Your task to perform on an android device: turn pop-ups on in chrome Image 0: 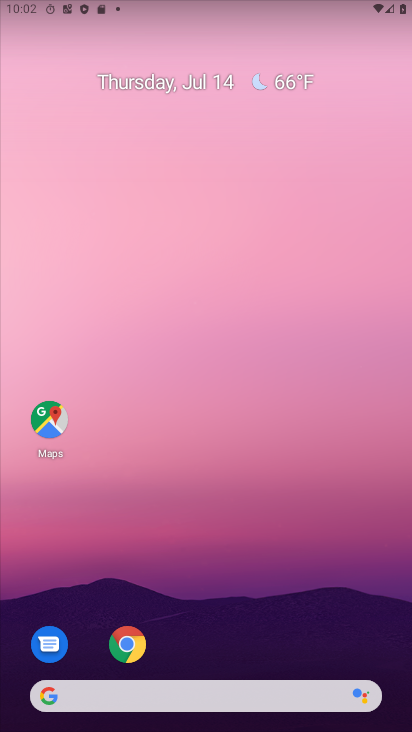
Step 0: click (271, 324)
Your task to perform on an android device: turn pop-ups on in chrome Image 1: 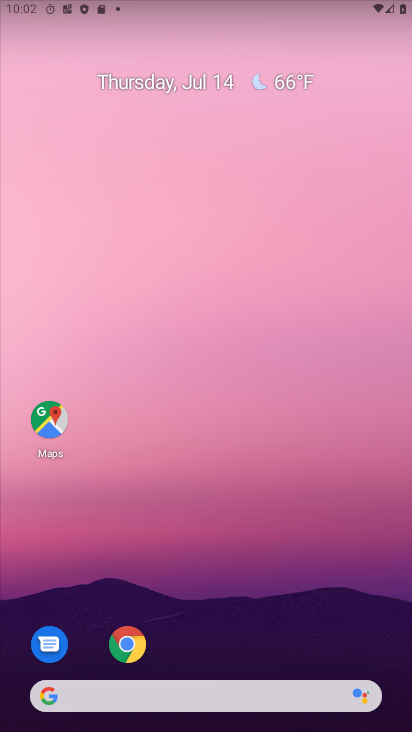
Step 1: drag from (278, 628) to (240, 357)
Your task to perform on an android device: turn pop-ups on in chrome Image 2: 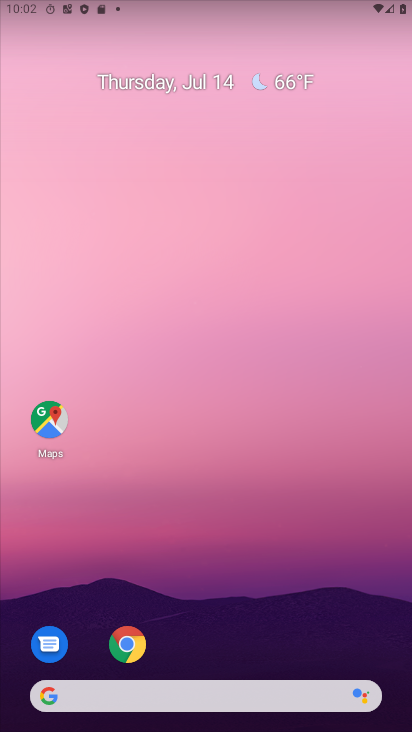
Step 2: drag from (254, 694) to (190, 242)
Your task to perform on an android device: turn pop-ups on in chrome Image 3: 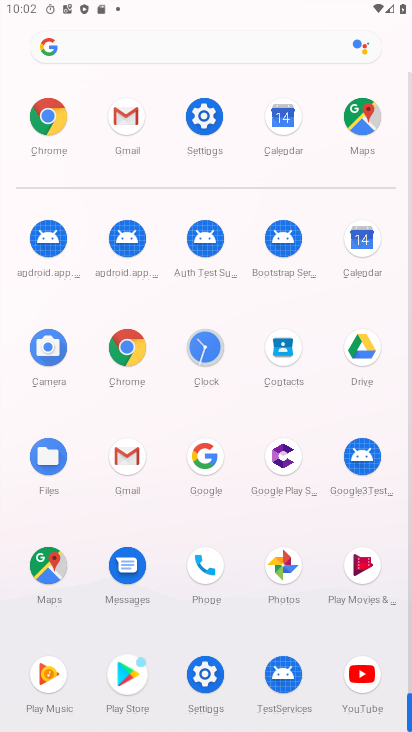
Step 3: drag from (255, 545) to (225, 108)
Your task to perform on an android device: turn pop-ups on in chrome Image 4: 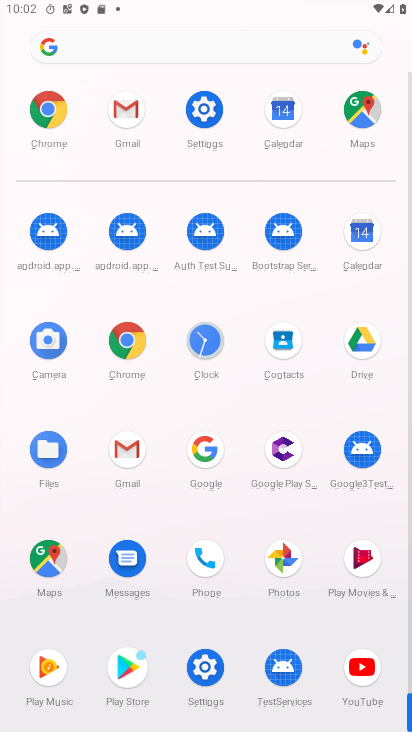
Step 4: click (123, 343)
Your task to perform on an android device: turn pop-ups on in chrome Image 5: 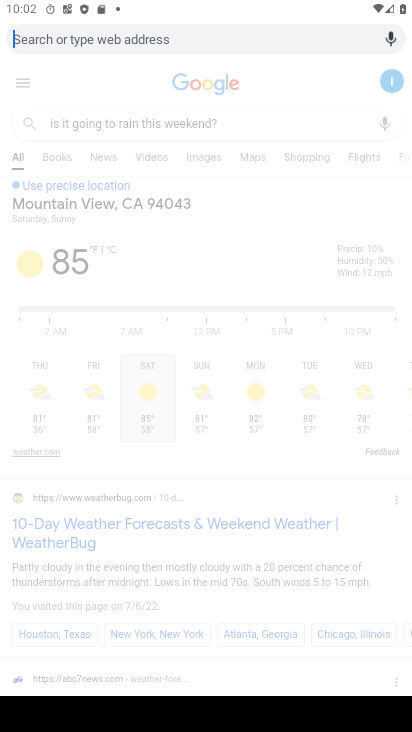
Step 5: click (390, 44)
Your task to perform on an android device: turn pop-ups on in chrome Image 6: 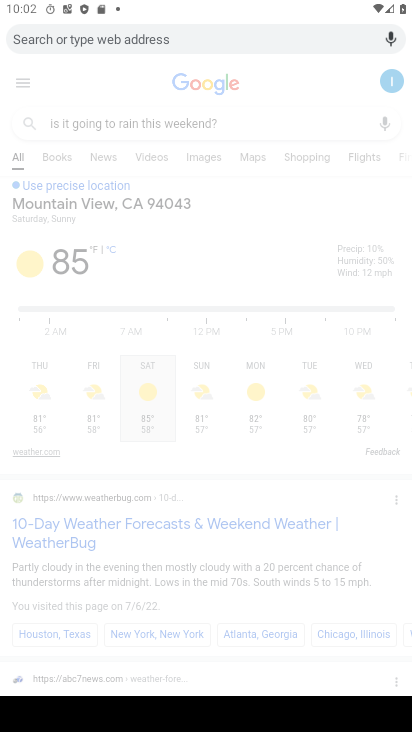
Step 6: click (389, 41)
Your task to perform on an android device: turn pop-ups on in chrome Image 7: 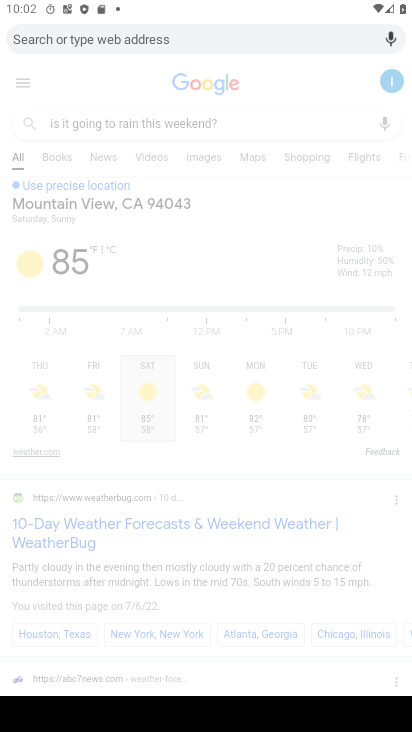
Step 7: click (390, 36)
Your task to perform on an android device: turn pop-ups on in chrome Image 8: 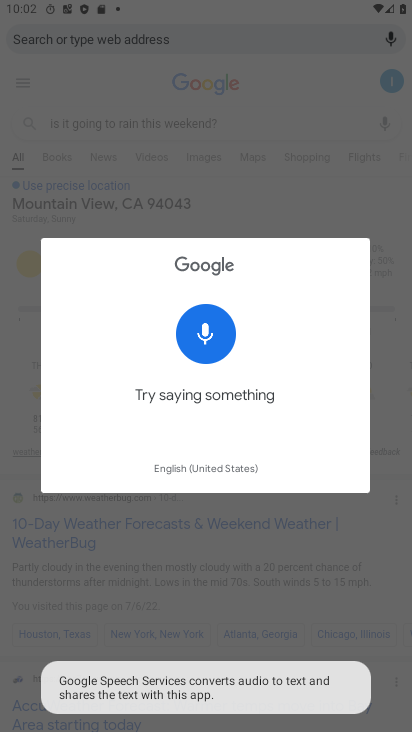
Step 8: press back button
Your task to perform on an android device: turn pop-ups on in chrome Image 9: 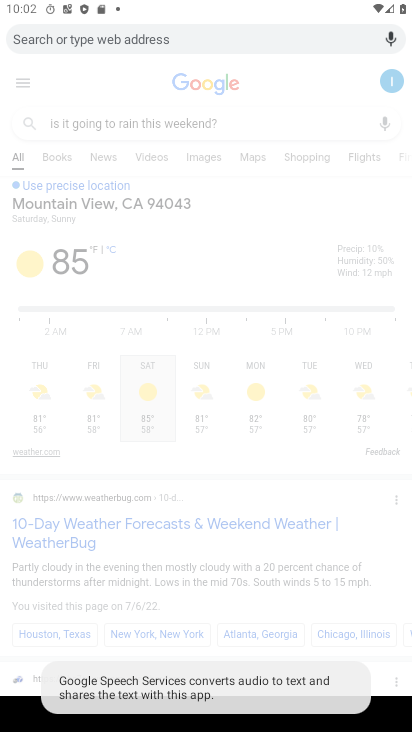
Step 9: press home button
Your task to perform on an android device: turn pop-ups on in chrome Image 10: 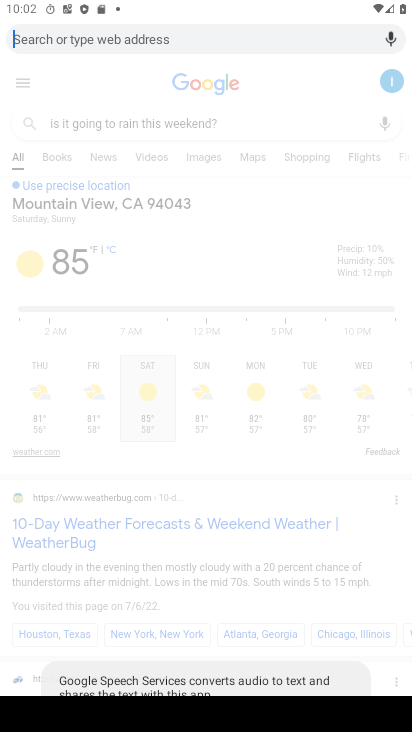
Step 10: press home button
Your task to perform on an android device: turn pop-ups on in chrome Image 11: 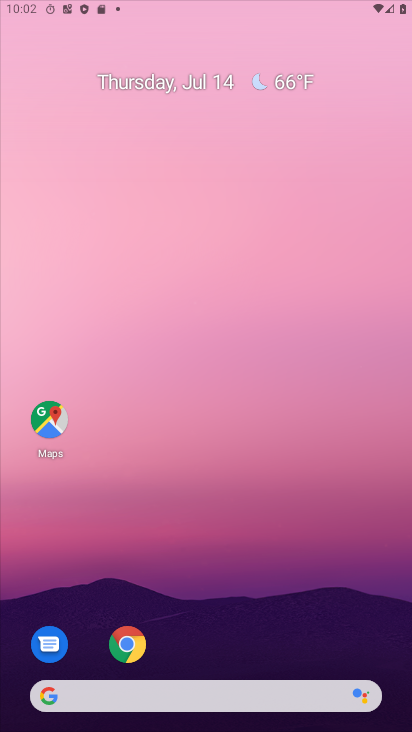
Step 11: press home button
Your task to perform on an android device: turn pop-ups on in chrome Image 12: 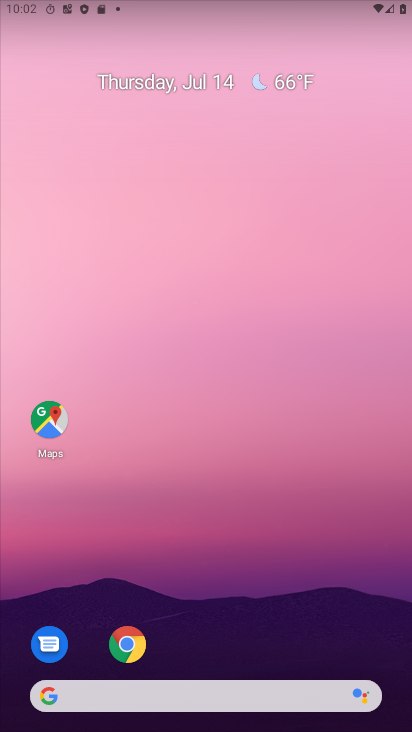
Step 12: drag from (223, 575) to (212, 82)
Your task to perform on an android device: turn pop-ups on in chrome Image 13: 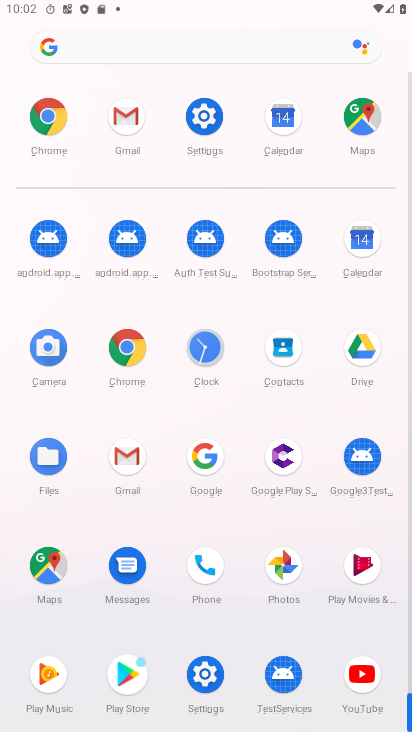
Step 13: click (56, 128)
Your task to perform on an android device: turn pop-ups on in chrome Image 14: 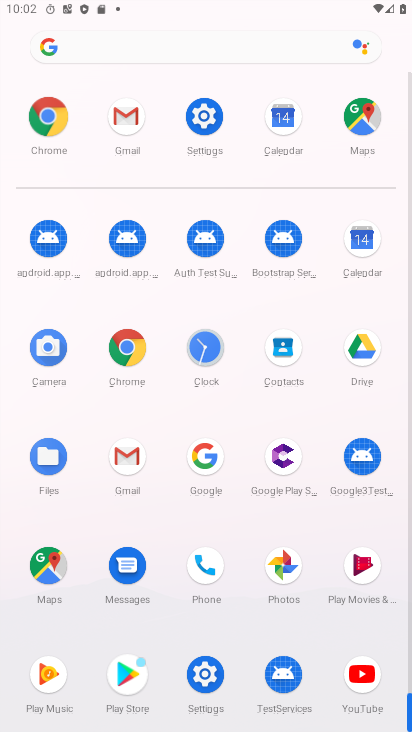
Step 14: click (56, 128)
Your task to perform on an android device: turn pop-ups on in chrome Image 15: 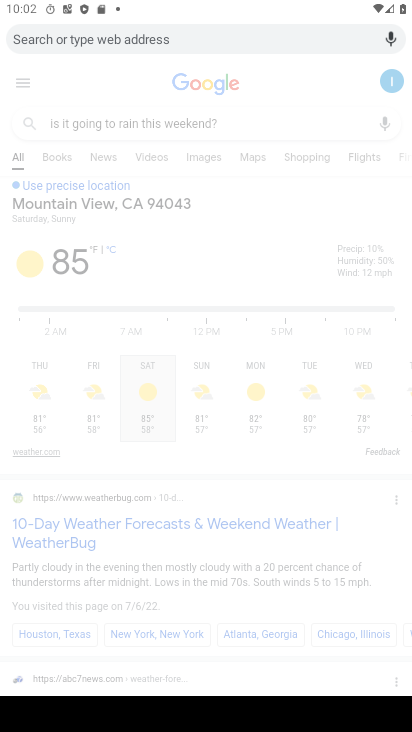
Step 15: click (389, 31)
Your task to perform on an android device: turn pop-ups on in chrome Image 16: 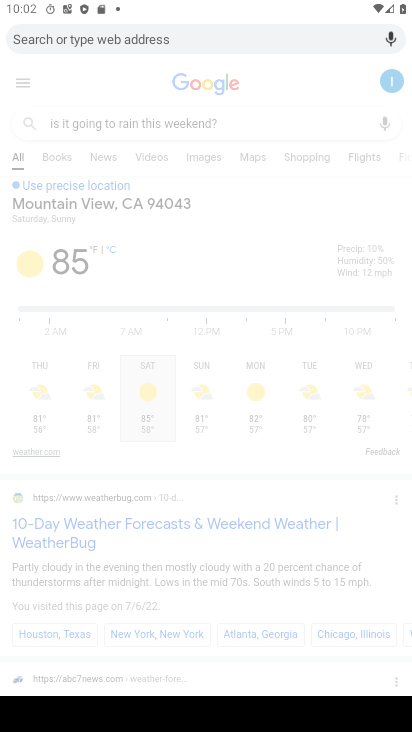
Step 16: click (389, 31)
Your task to perform on an android device: turn pop-ups on in chrome Image 17: 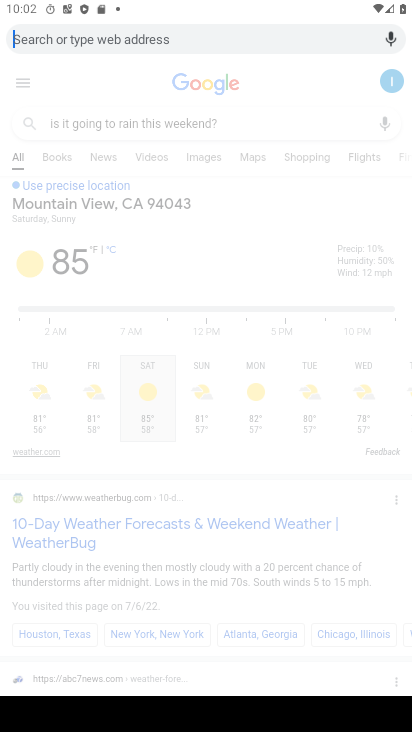
Step 17: drag from (389, 31) to (366, 460)
Your task to perform on an android device: turn pop-ups on in chrome Image 18: 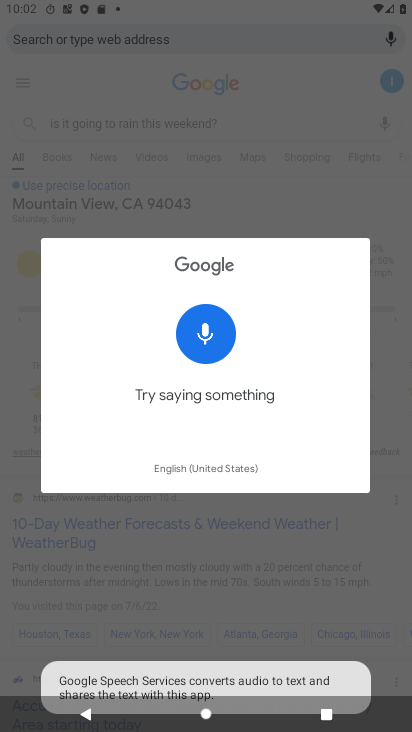
Step 18: click (331, 192)
Your task to perform on an android device: turn pop-ups on in chrome Image 19: 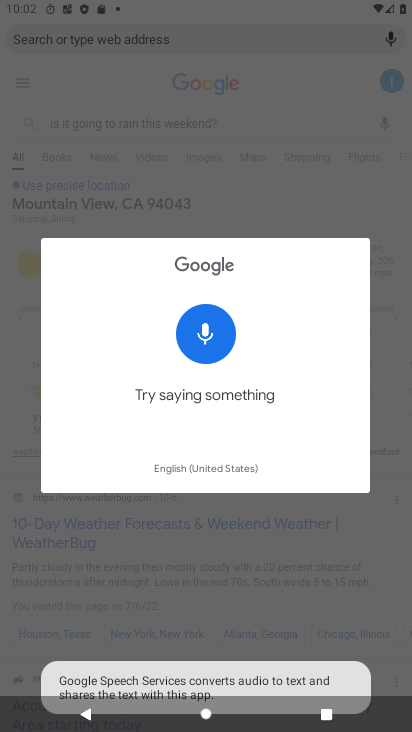
Step 19: click (332, 191)
Your task to perform on an android device: turn pop-ups on in chrome Image 20: 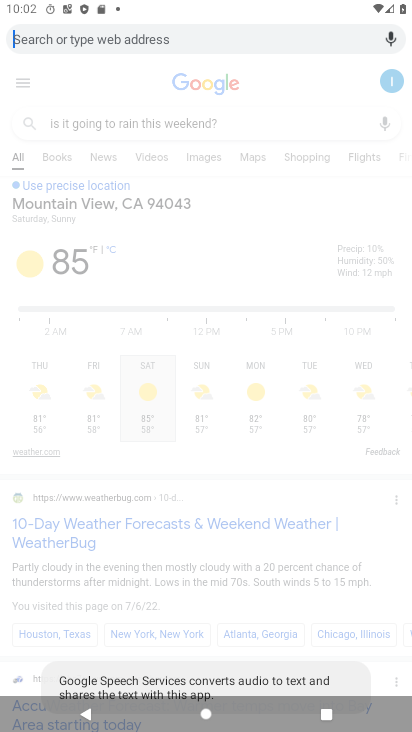
Step 20: click (333, 191)
Your task to perform on an android device: turn pop-ups on in chrome Image 21: 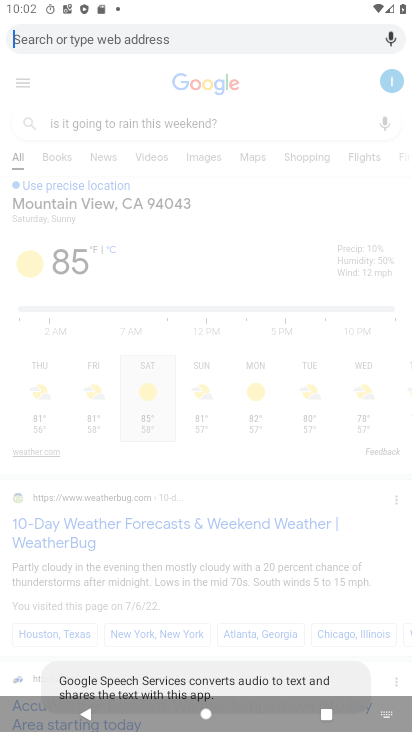
Step 21: click (345, 183)
Your task to perform on an android device: turn pop-ups on in chrome Image 22: 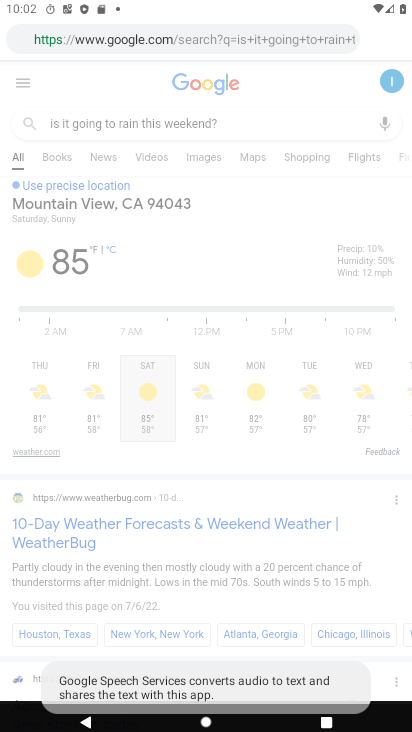
Step 22: click (345, 183)
Your task to perform on an android device: turn pop-ups on in chrome Image 23: 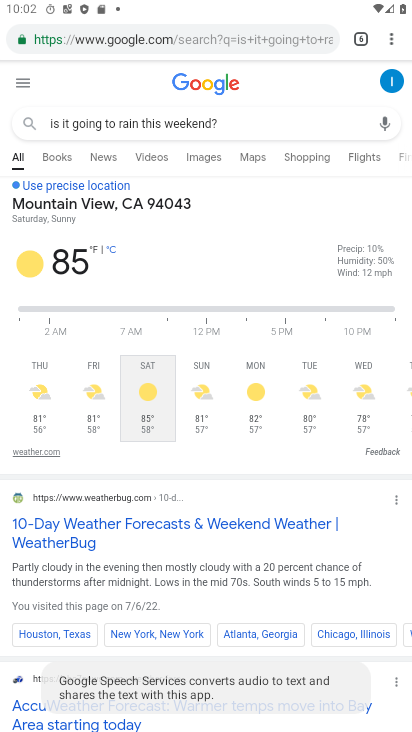
Step 23: click (345, 183)
Your task to perform on an android device: turn pop-ups on in chrome Image 24: 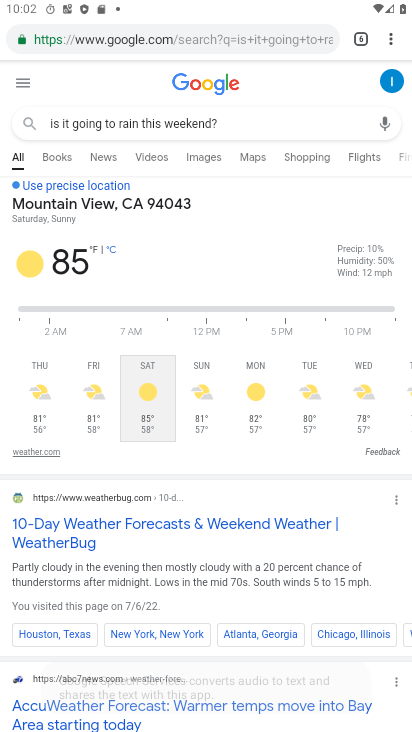
Step 24: click (343, 198)
Your task to perform on an android device: turn pop-ups on in chrome Image 25: 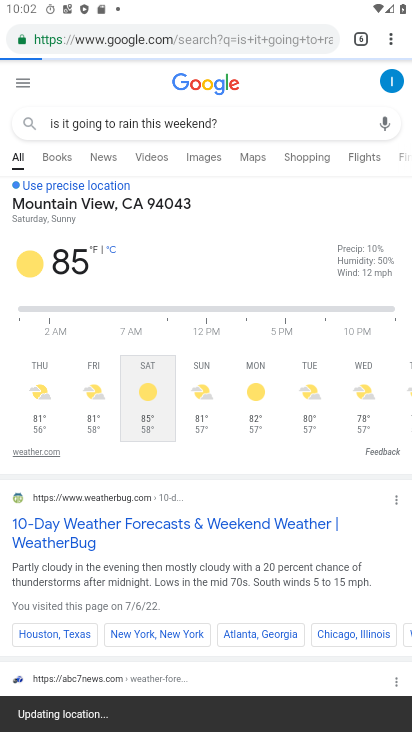
Step 25: drag from (395, 38) to (232, 431)
Your task to perform on an android device: turn pop-ups on in chrome Image 26: 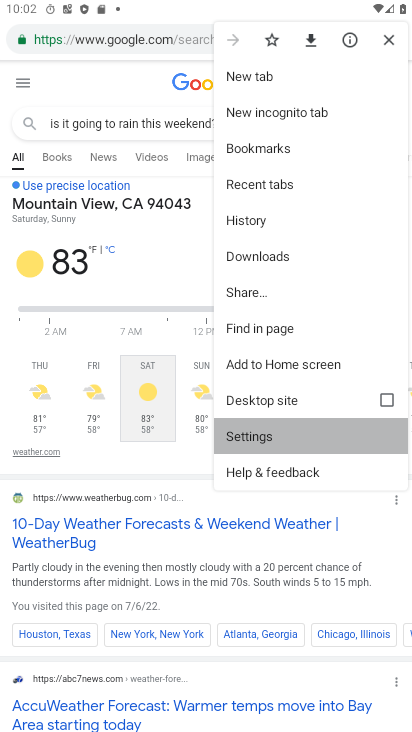
Step 26: click (232, 431)
Your task to perform on an android device: turn pop-ups on in chrome Image 27: 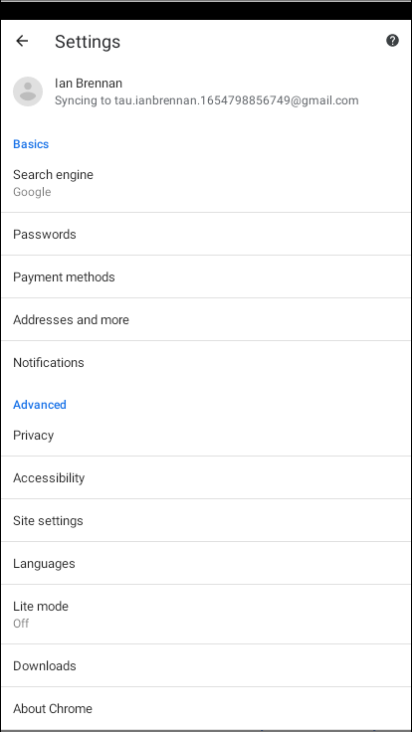
Step 27: click (232, 431)
Your task to perform on an android device: turn pop-ups on in chrome Image 28: 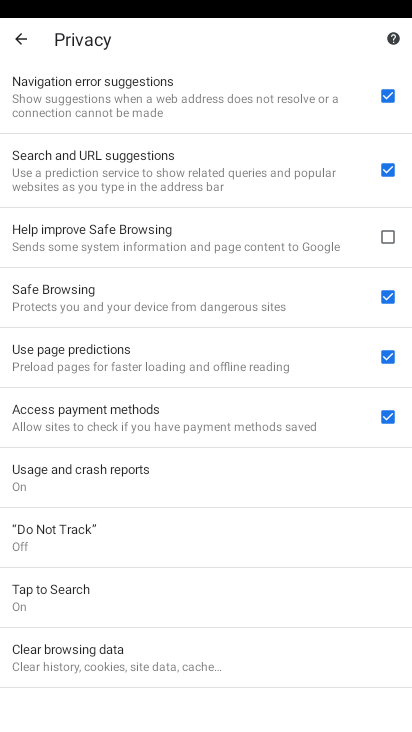
Step 28: click (12, 38)
Your task to perform on an android device: turn pop-ups on in chrome Image 29: 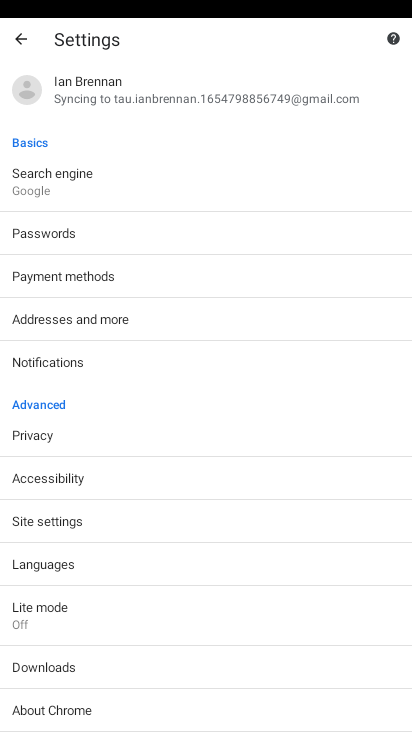
Step 29: click (52, 518)
Your task to perform on an android device: turn pop-ups on in chrome Image 30: 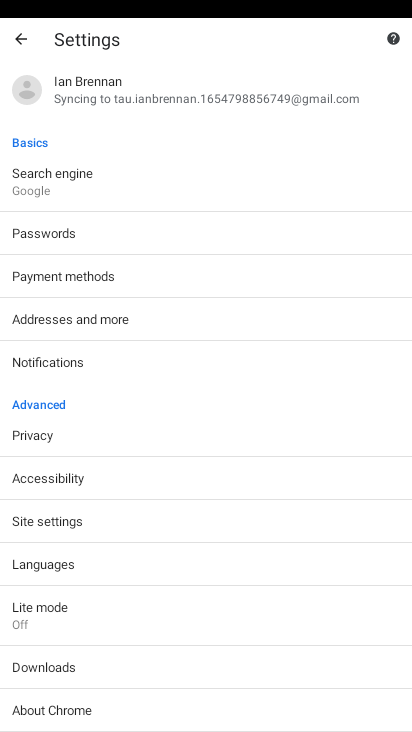
Step 30: click (52, 518)
Your task to perform on an android device: turn pop-ups on in chrome Image 31: 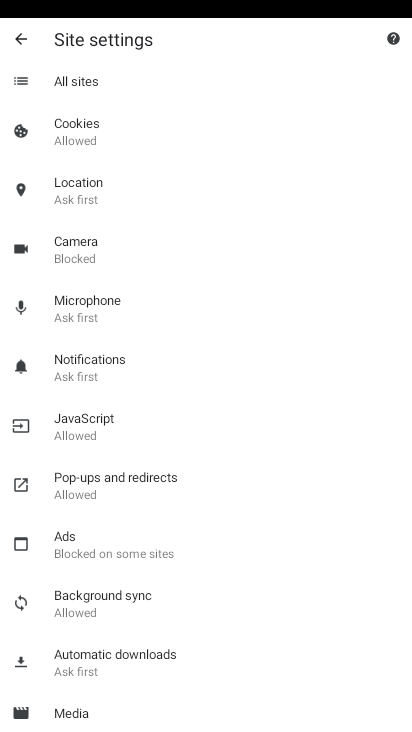
Step 31: click (86, 474)
Your task to perform on an android device: turn pop-ups on in chrome Image 32: 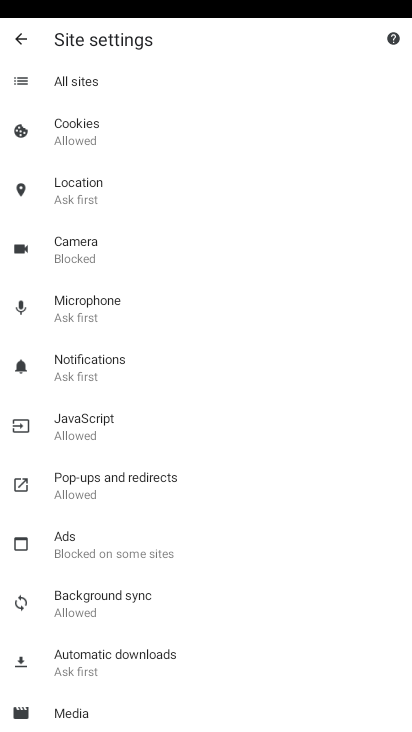
Step 32: click (86, 474)
Your task to perform on an android device: turn pop-ups on in chrome Image 33: 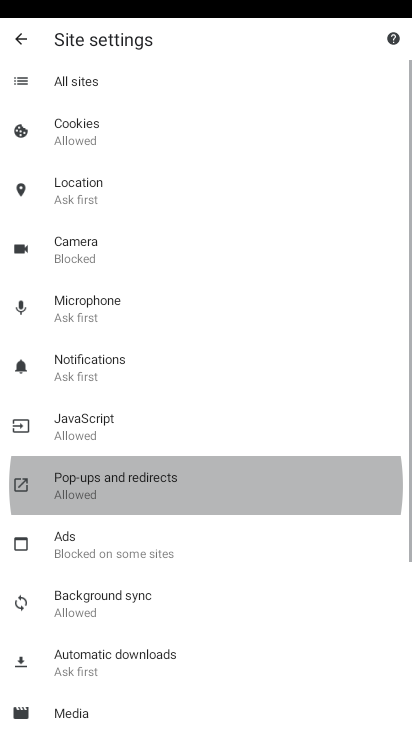
Step 33: click (85, 475)
Your task to perform on an android device: turn pop-ups on in chrome Image 34: 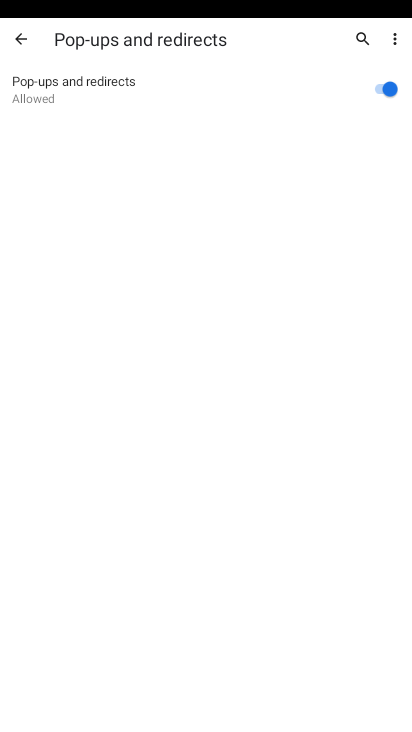
Step 34: task complete